Your task to perform on an android device: set the timer Image 0: 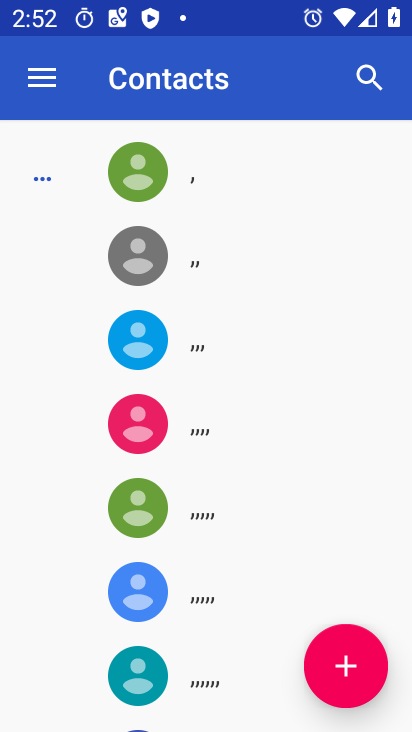
Step 0: press back button
Your task to perform on an android device: set the timer Image 1: 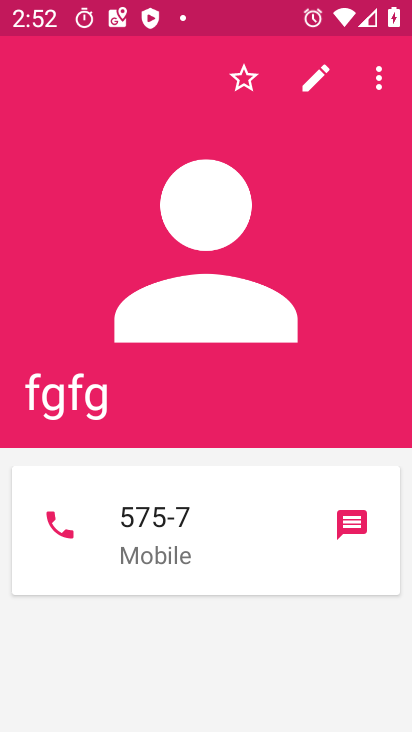
Step 1: press back button
Your task to perform on an android device: set the timer Image 2: 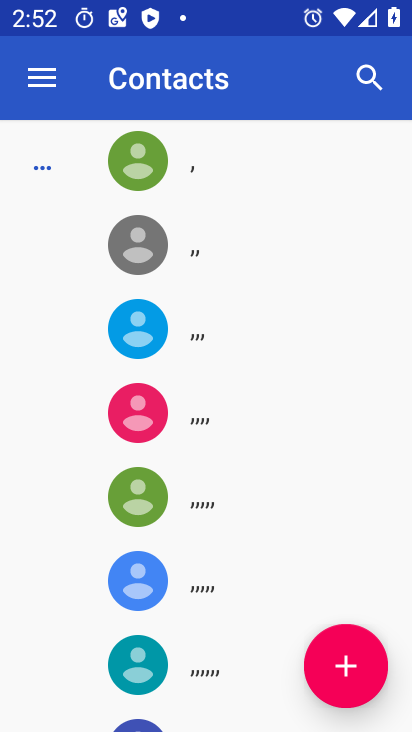
Step 2: press back button
Your task to perform on an android device: set the timer Image 3: 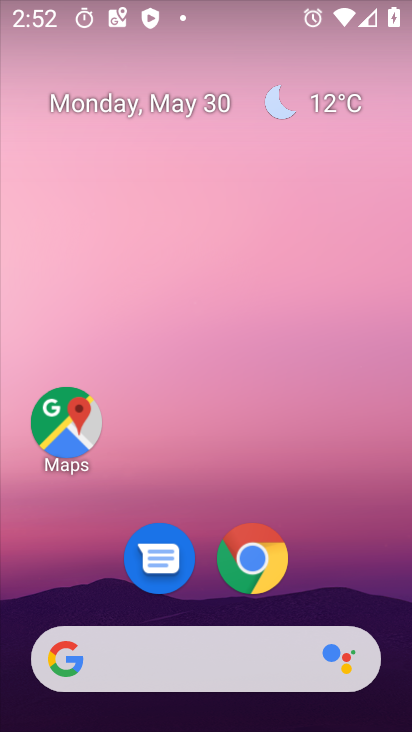
Step 3: drag from (223, 429) to (282, 1)
Your task to perform on an android device: set the timer Image 4: 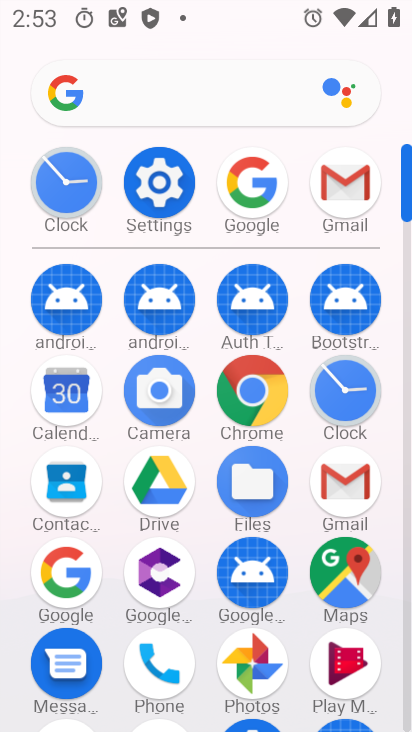
Step 4: click (340, 389)
Your task to perform on an android device: set the timer Image 5: 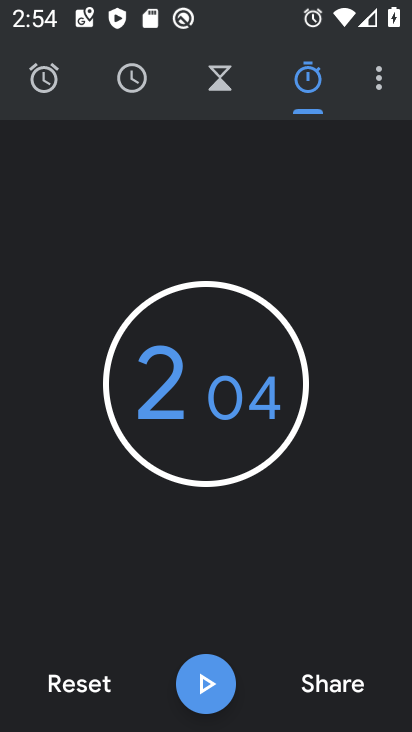
Step 5: click (218, 78)
Your task to perform on an android device: set the timer Image 6: 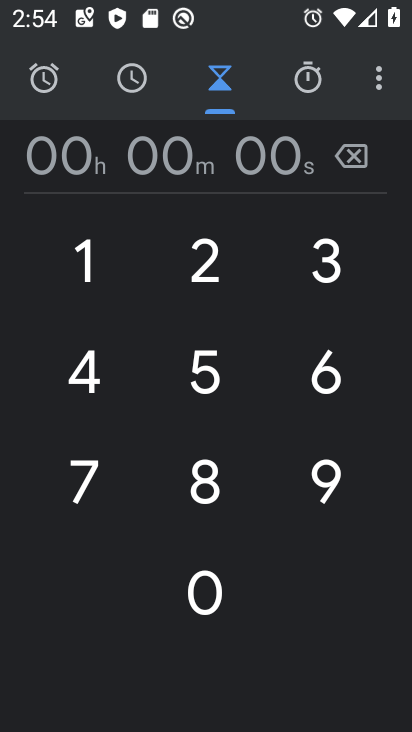
Step 6: click (221, 255)
Your task to perform on an android device: set the timer Image 7: 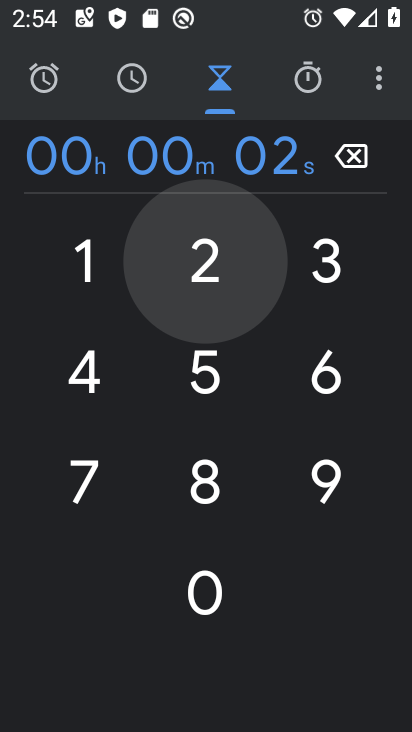
Step 7: click (319, 255)
Your task to perform on an android device: set the timer Image 8: 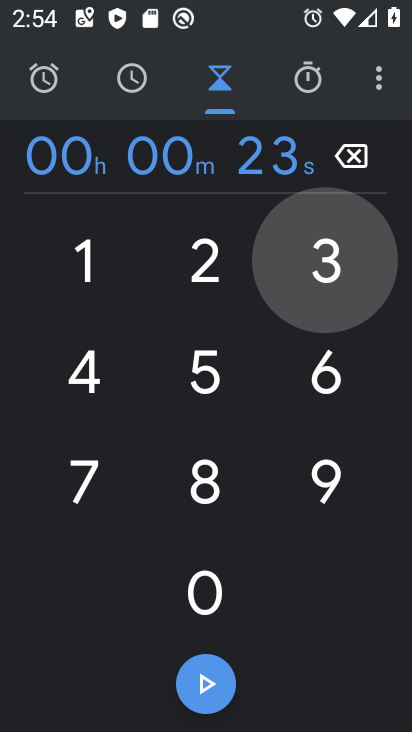
Step 8: click (191, 369)
Your task to perform on an android device: set the timer Image 9: 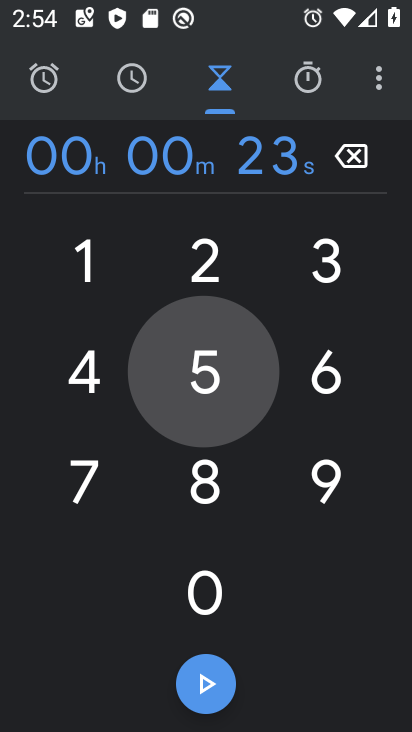
Step 9: click (345, 365)
Your task to perform on an android device: set the timer Image 10: 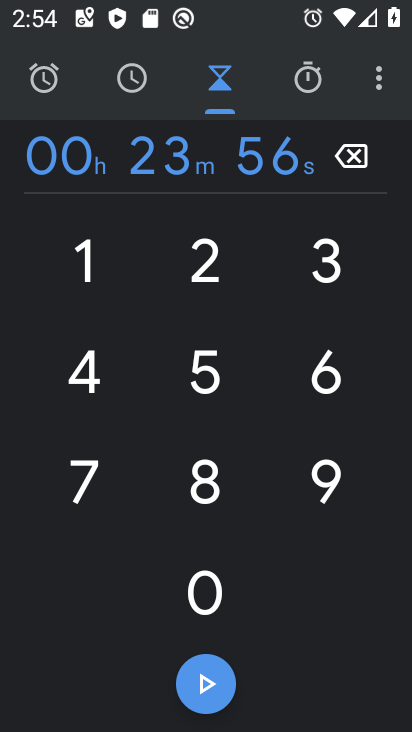
Step 10: click (227, 486)
Your task to perform on an android device: set the timer Image 11: 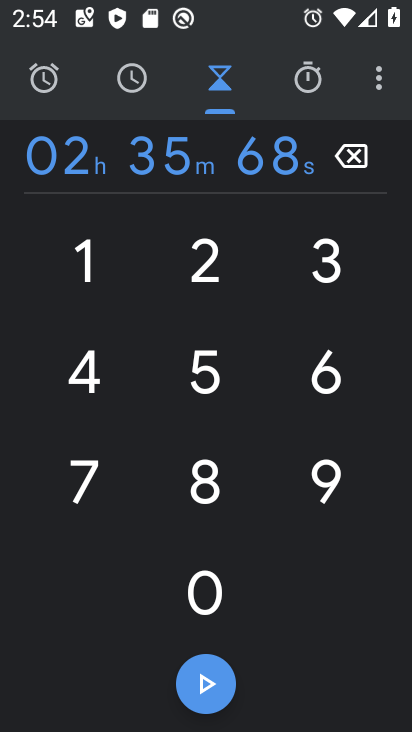
Step 11: click (173, 688)
Your task to perform on an android device: set the timer Image 12: 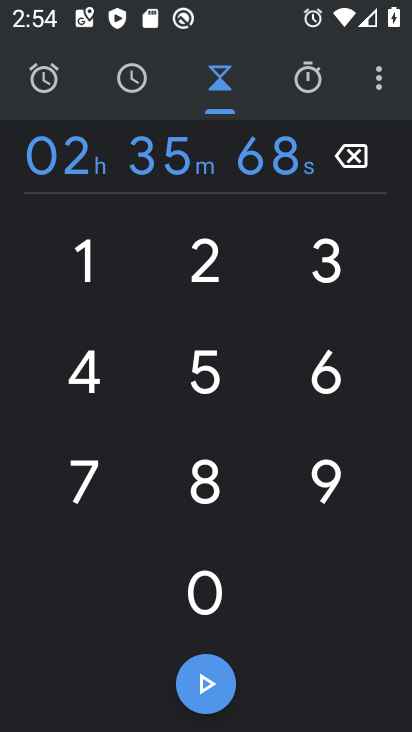
Step 12: click (207, 693)
Your task to perform on an android device: set the timer Image 13: 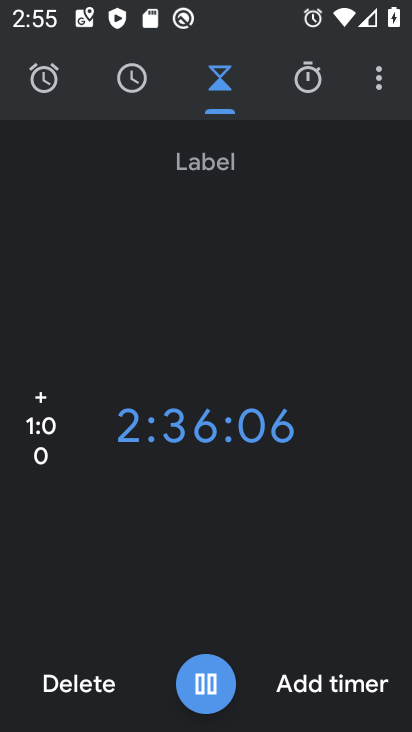
Step 13: task complete